Your task to perform on an android device: set an alarm Image 0: 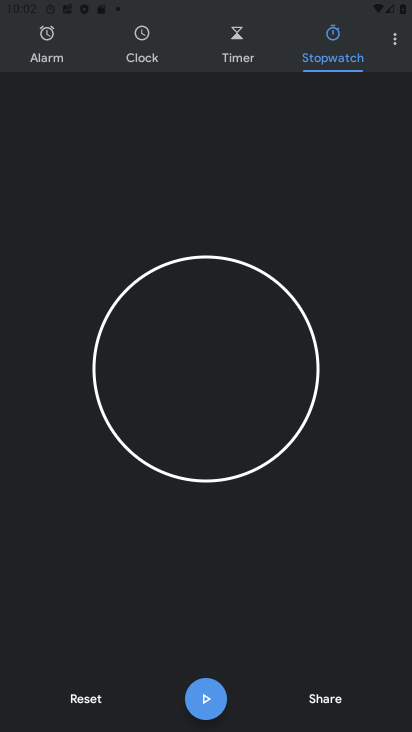
Step 0: press back button
Your task to perform on an android device: set an alarm Image 1: 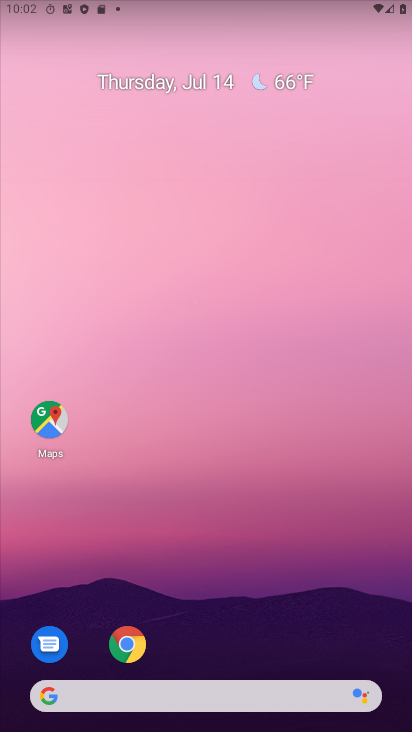
Step 1: drag from (170, 320) to (113, 29)
Your task to perform on an android device: set an alarm Image 2: 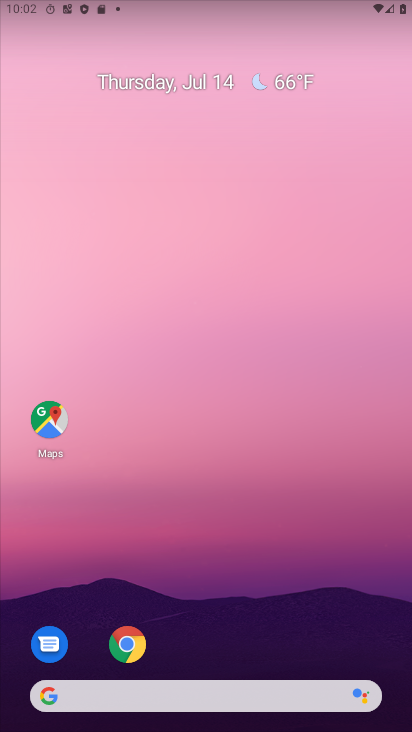
Step 2: drag from (192, 489) to (126, 215)
Your task to perform on an android device: set an alarm Image 3: 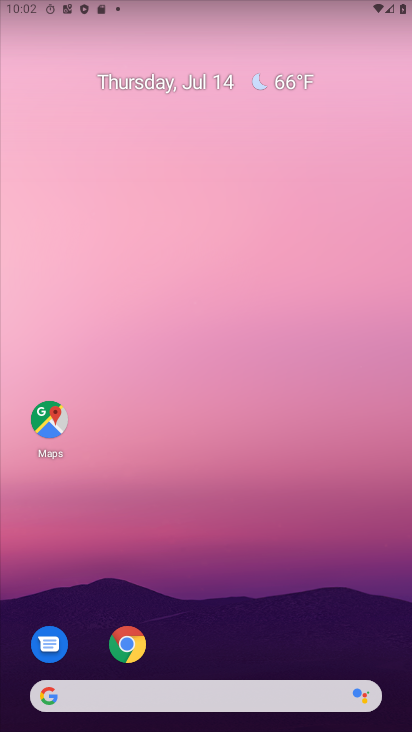
Step 3: click (110, 178)
Your task to perform on an android device: set an alarm Image 4: 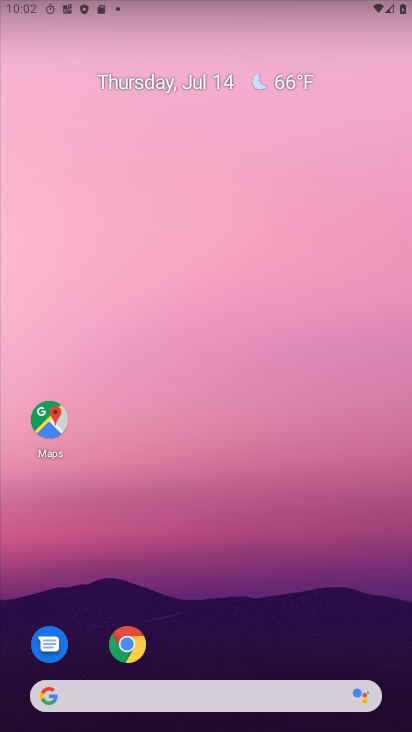
Step 4: drag from (222, 471) to (179, 49)
Your task to perform on an android device: set an alarm Image 5: 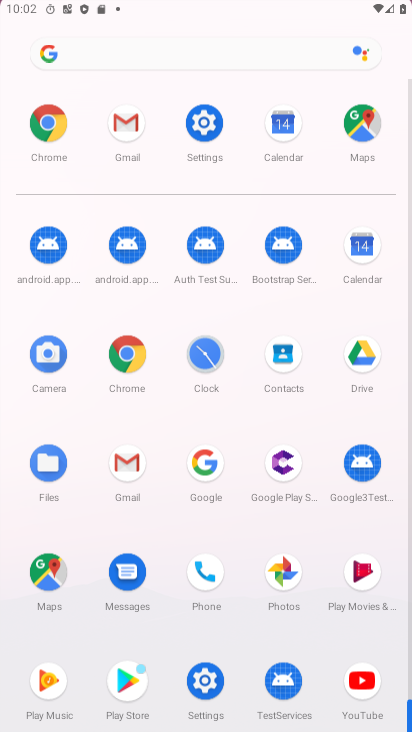
Step 5: drag from (279, 534) to (208, 208)
Your task to perform on an android device: set an alarm Image 6: 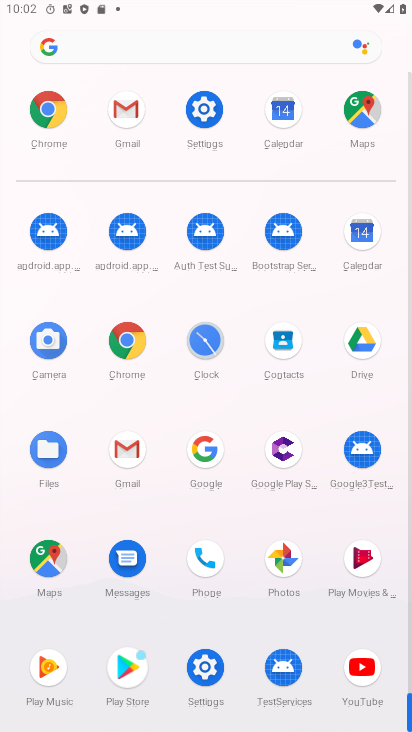
Step 6: click (206, 344)
Your task to perform on an android device: set an alarm Image 7: 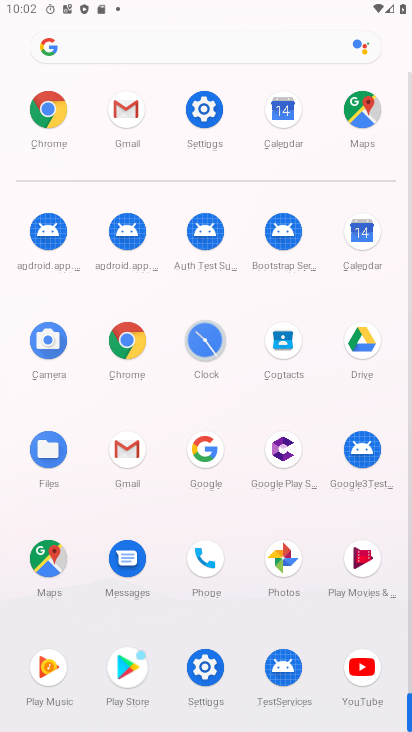
Step 7: click (202, 343)
Your task to perform on an android device: set an alarm Image 8: 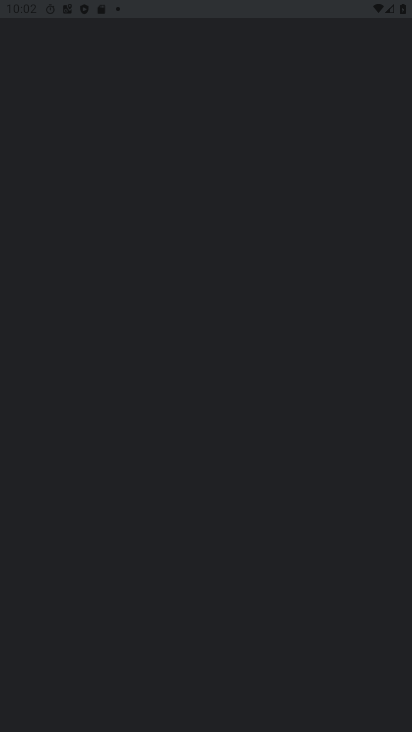
Step 8: click (202, 343)
Your task to perform on an android device: set an alarm Image 9: 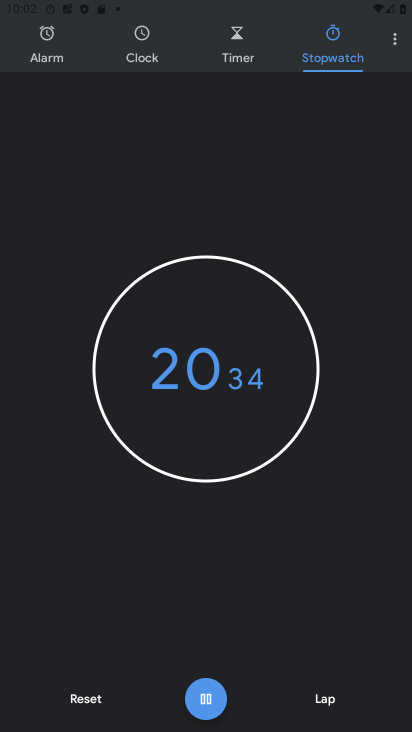
Step 9: click (142, 64)
Your task to perform on an android device: set an alarm Image 10: 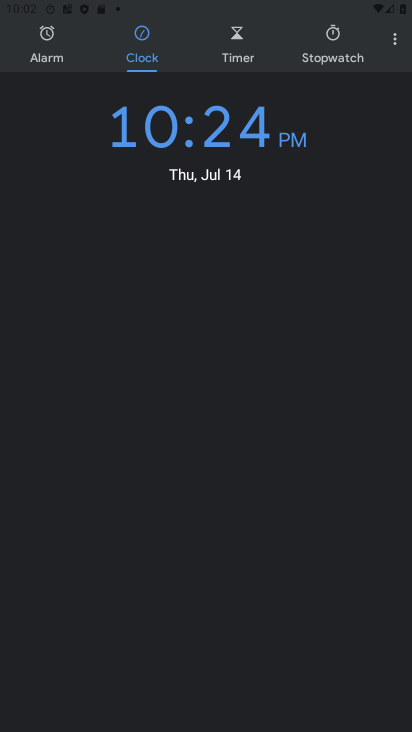
Step 10: click (141, 63)
Your task to perform on an android device: set an alarm Image 11: 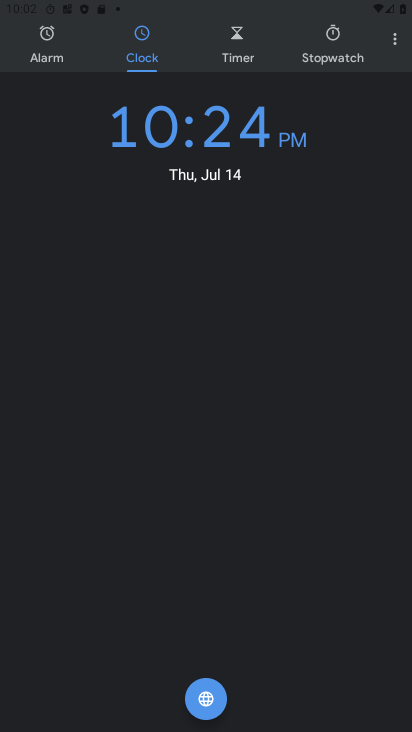
Step 11: click (57, 43)
Your task to perform on an android device: set an alarm Image 12: 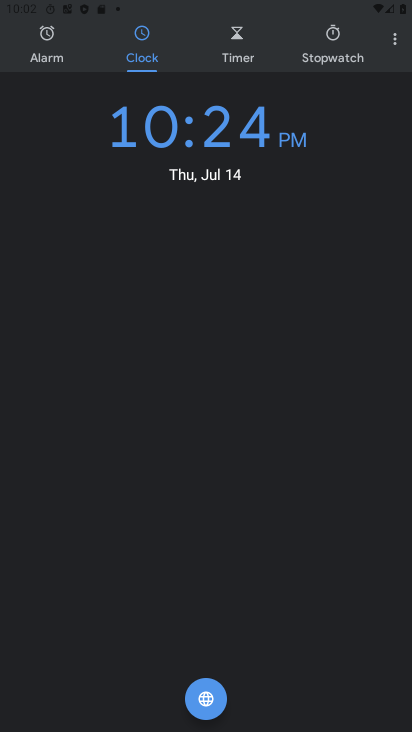
Step 12: click (57, 43)
Your task to perform on an android device: set an alarm Image 13: 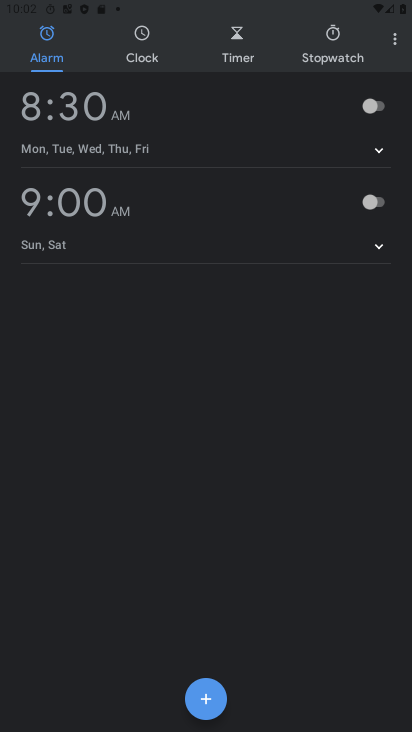
Step 13: click (373, 102)
Your task to perform on an android device: set an alarm Image 14: 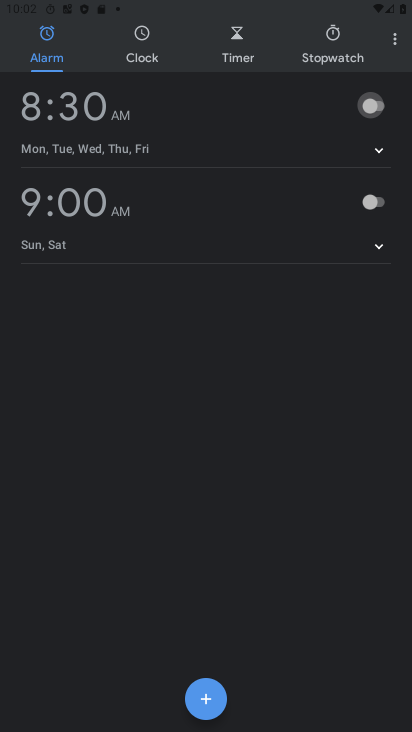
Step 14: click (373, 102)
Your task to perform on an android device: set an alarm Image 15: 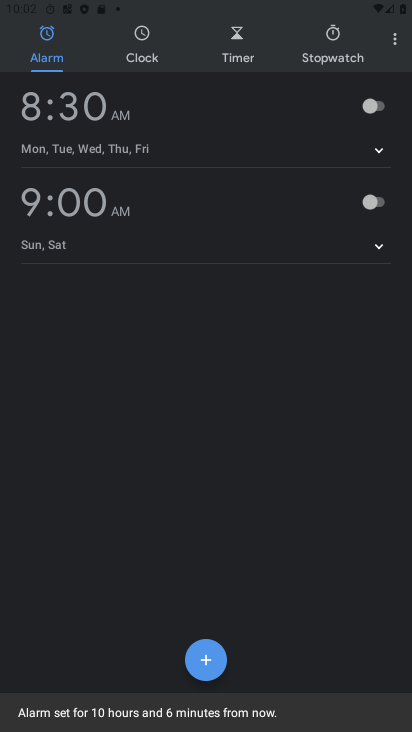
Step 15: click (373, 104)
Your task to perform on an android device: set an alarm Image 16: 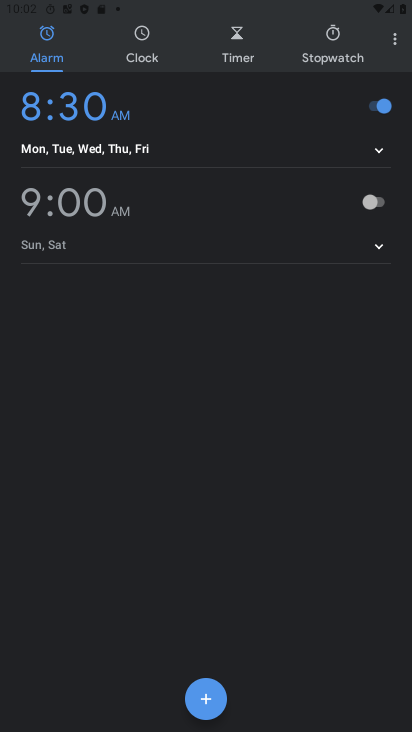
Step 16: task complete